Your task to perform on an android device: open chrome privacy settings Image 0: 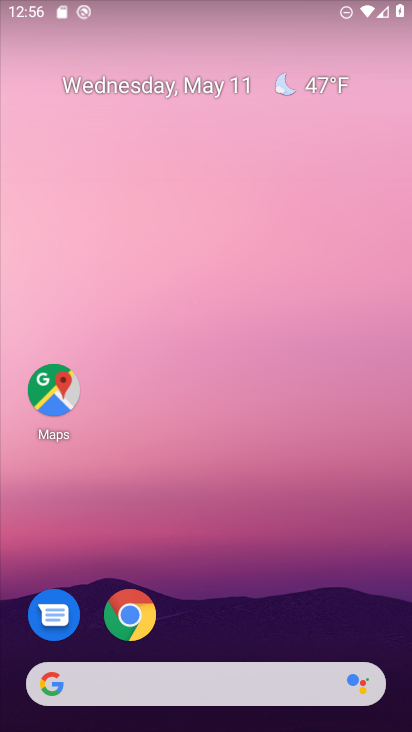
Step 0: drag from (280, 568) to (229, 2)
Your task to perform on an android device: open chrome privacy settings Image 1: 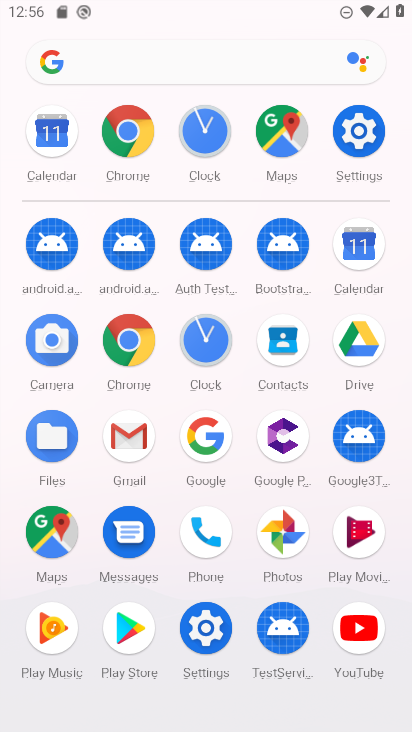
Step 1: click (344, 139)
Your task to perform on an android device: open chrome privacy settings Image 2: 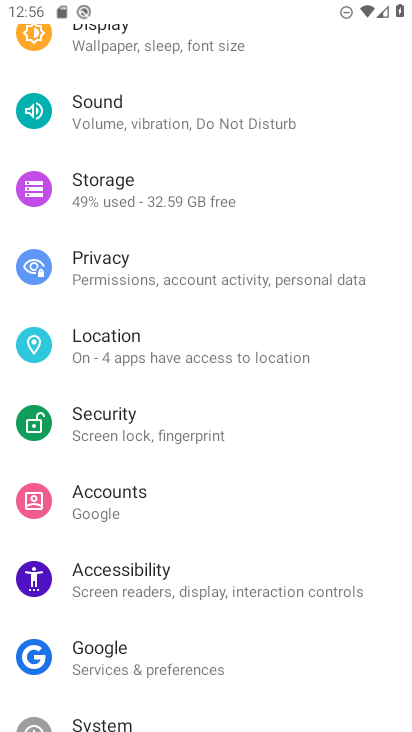
Step 2: drag from (289, 143) to (260, 615)
Your task to perform on an android device: open chrome privacy settings Image 3: 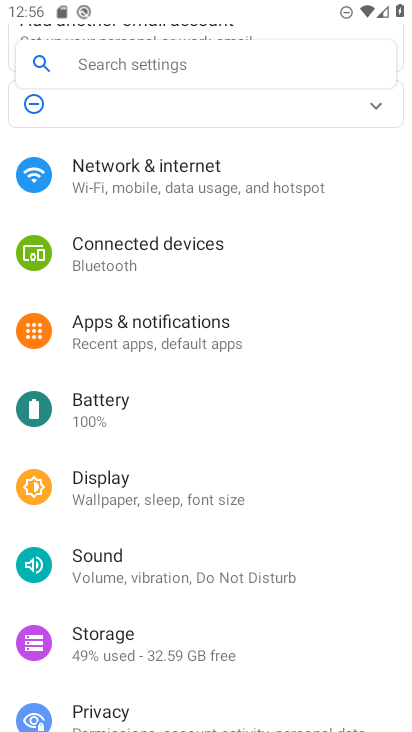
Step 3: drag from (98, 678) to (120, 314)
Your task to perform on an android device: open chrome privacy settings Image 4: 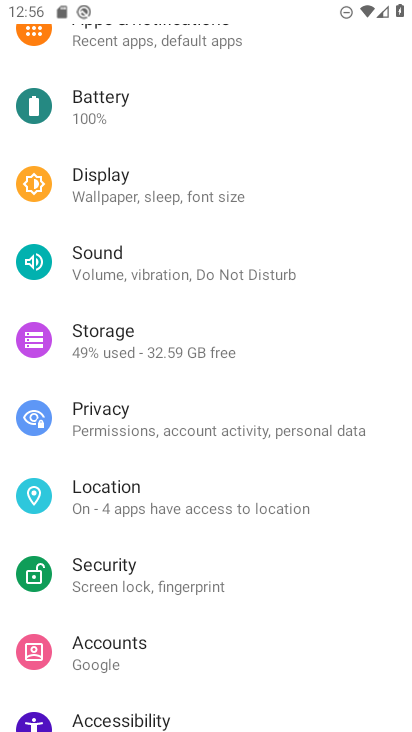
Step 4: click (107, 413)
Your task to perform on an android device: open chrome privacy settings Image 5: 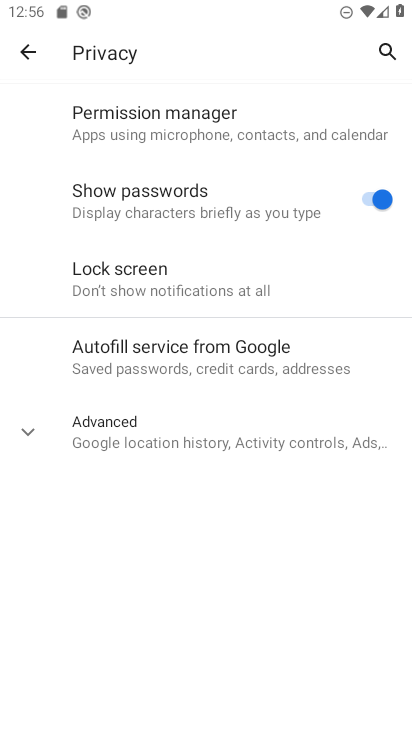
Step 5: task complete